Your task to perform on an android device: add a contact in the contacts app Image 0: 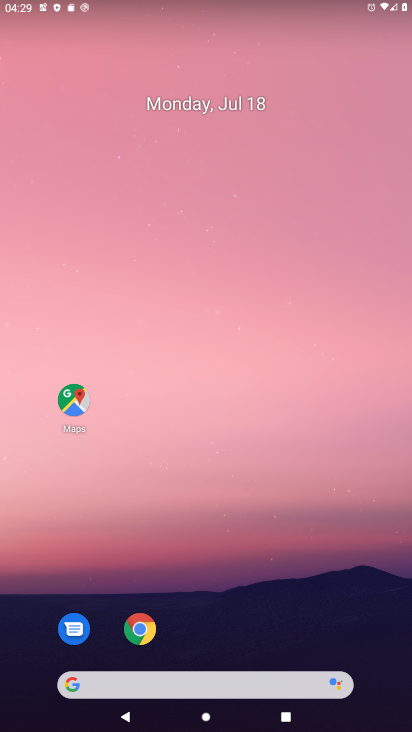
Step 0: drag from (379, 685) to (333, 161)
Your task to perform on an android device: add a contact in the contacts app Image 1: 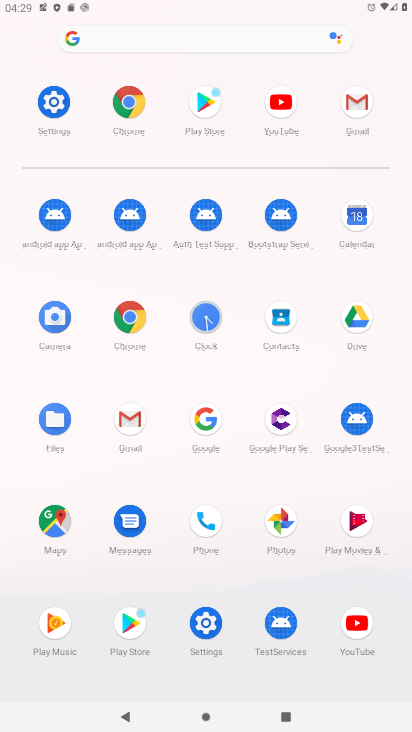
Step 1: click (290, 324)
Your task to perform on an android device: add a contact in the contacts app Image 2: 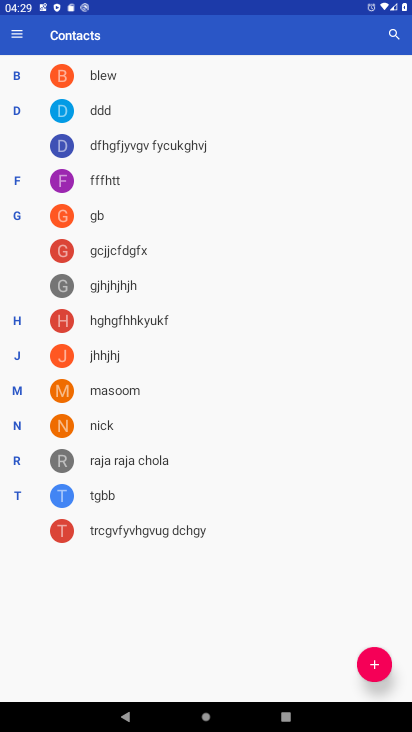
Step 2: click (367, 667)
Your task to perform on an android device: add a contact in the contacts app Image 3: 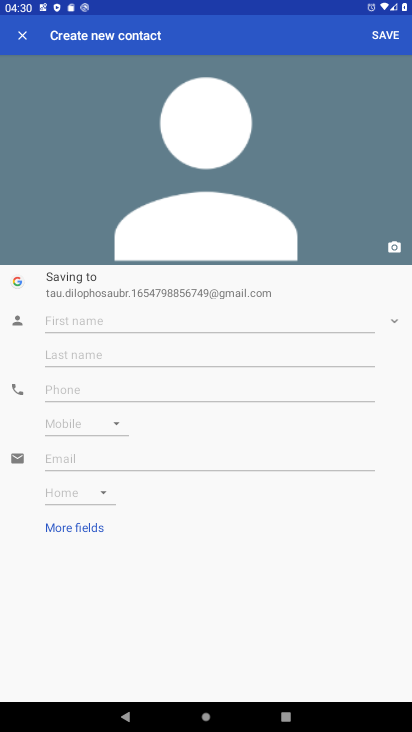
Step 3: click (126, 313)
Your task to perform on an android device: add a contact in the contacts app Image 4: 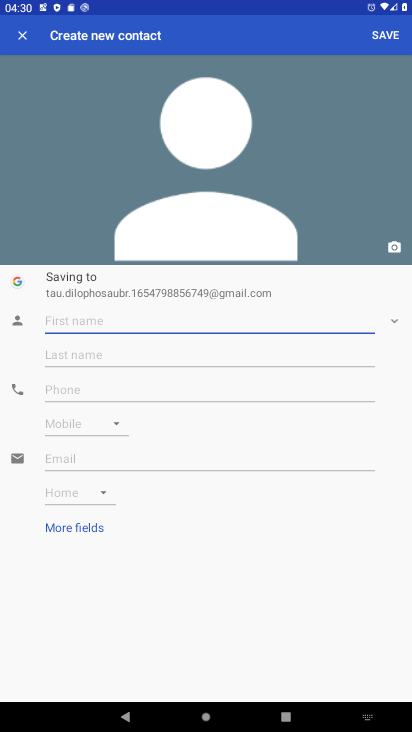
Step 4: type "cjhgugjvvj"
Your task to perform on an android device: add a contact in the contacts app Image 5: 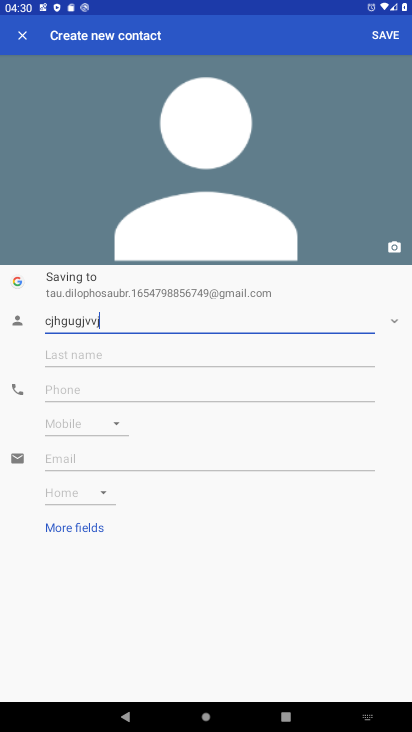
Step 5: click (88, 350)
Your task to perform on an android device: add a contact in the contacts app Image 6: 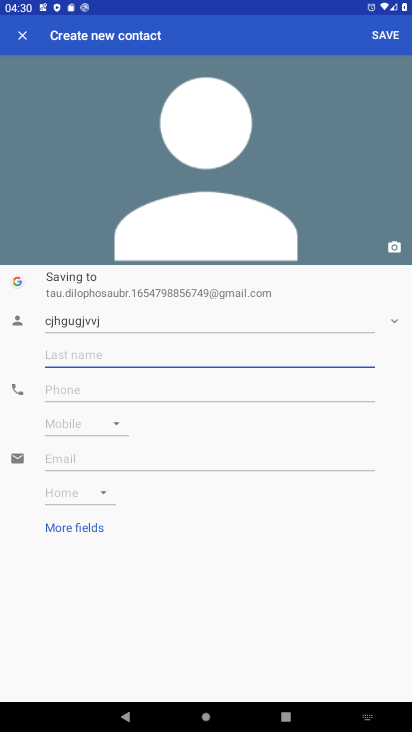
Step 6: type "htcytfugjfyrdy"
Your task to perform on an android device: add a contact in the contacts app Image 7: 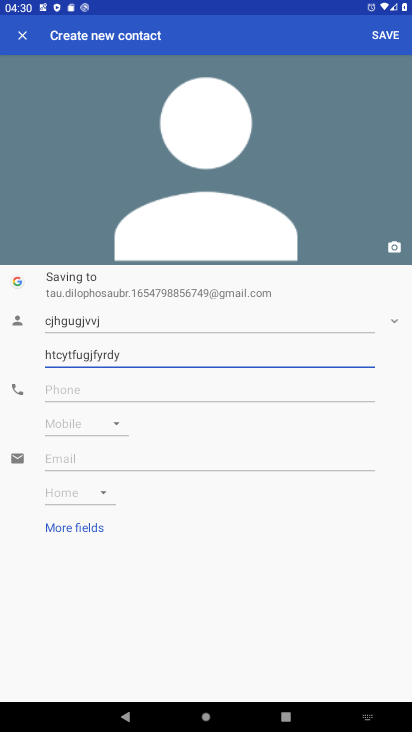
Step 7: click (121, 389)
Your task to perform on an android device: add a contact in the contacts app Image 8: 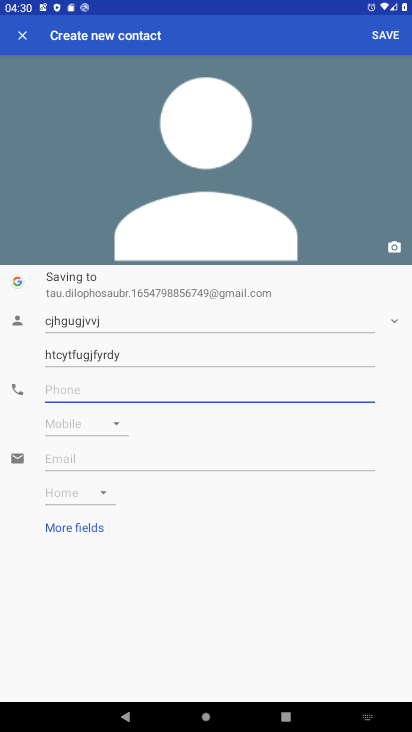
Step 8: type "587857686754556"
Your task to perform on an android device: add a contact in the contacts app Image 9: 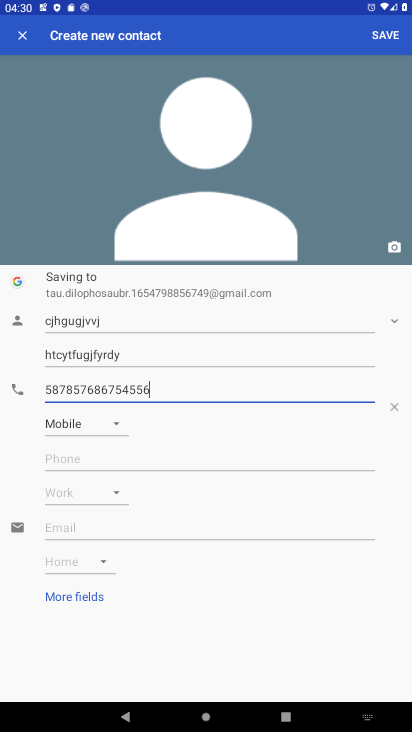
Step 9: click (372, 30)
Your task to perform on an android device: add a contact in the contacts app Image 10: 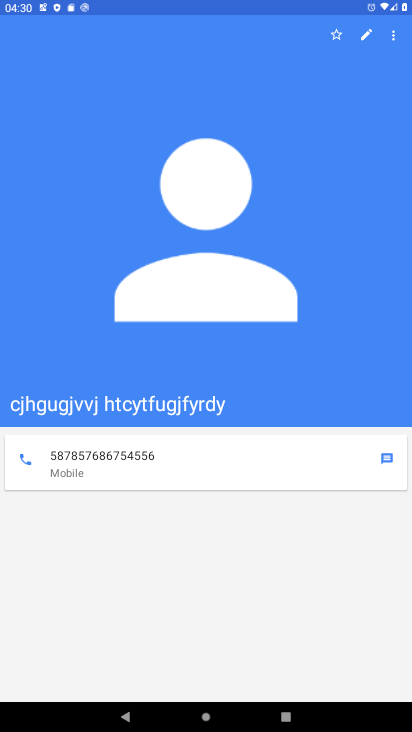
Step 10: task complete